Your task to perform on an android device: see tabs open on other devices in the chrome app Image 0: 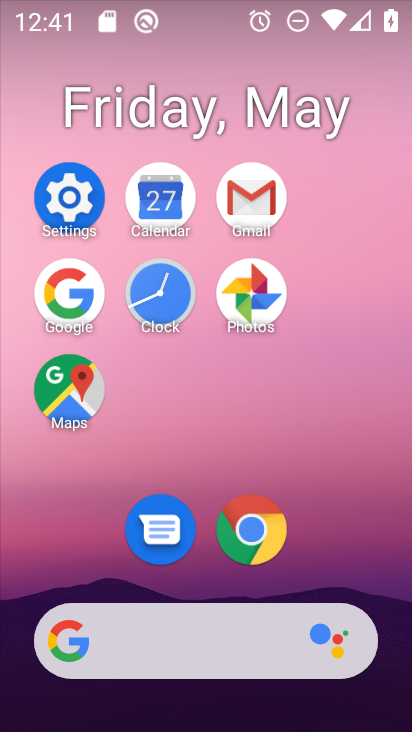
Step 0: click (269, 532)
Your task to perform on an android device: see tabs open on other devices in the chrome app Image 1: 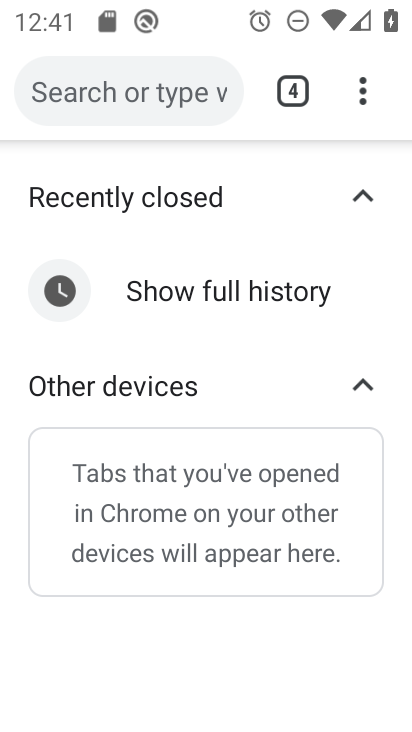
Step 1: click (360, 123)
Your task to perform on an android device: see tabs open on other devices in the chrome app Image 2: 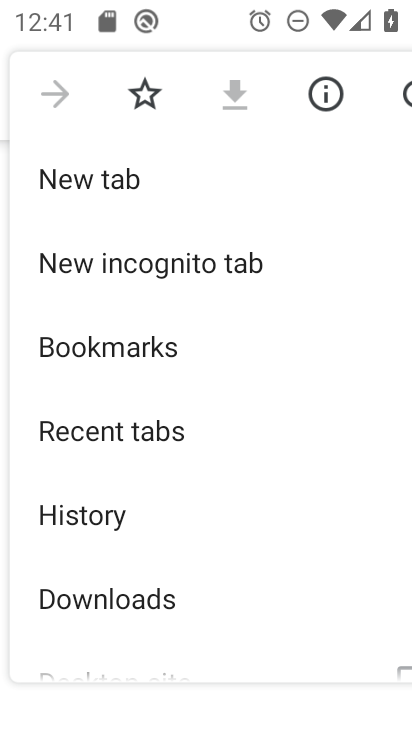
Step 2: click (137, 422)
Your task to perform on an android device: see tabs open on other devices in the chrome app Image 3: 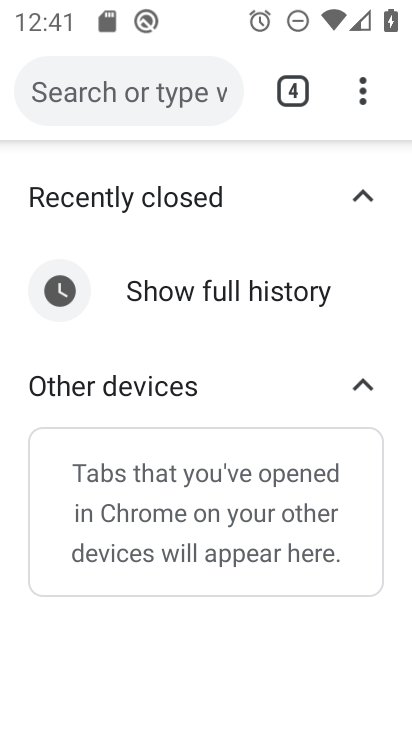
Step 3: task complete